Your task to perform on an android device: delete location history Image 0: 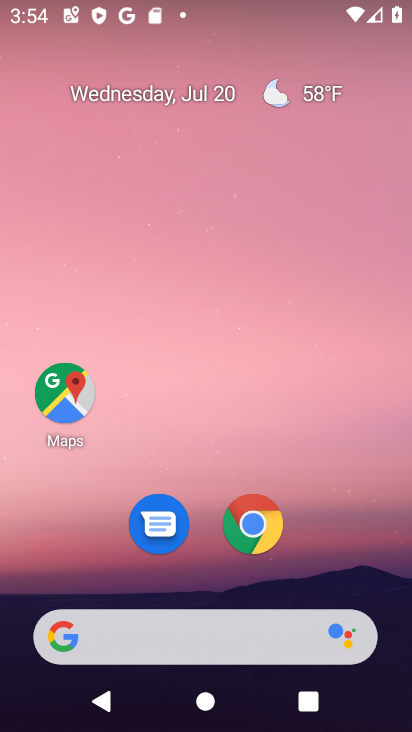
Step 0: click (59, 390)
Your task to perform on an android device: delete location history Image 1: 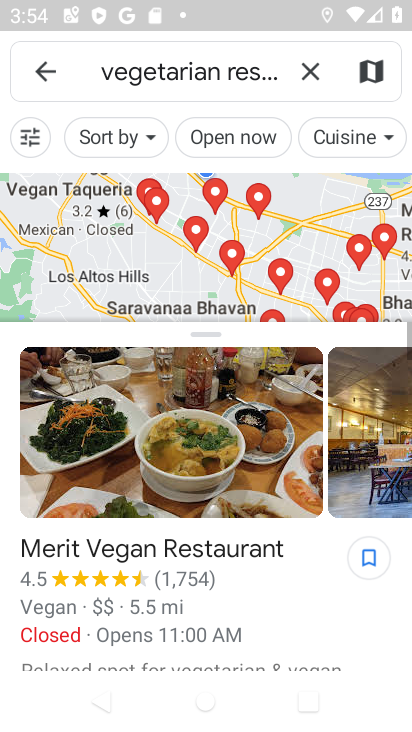
Step 1: click (51, 66)
Your task to perform on an android device: delete location history Image 2: 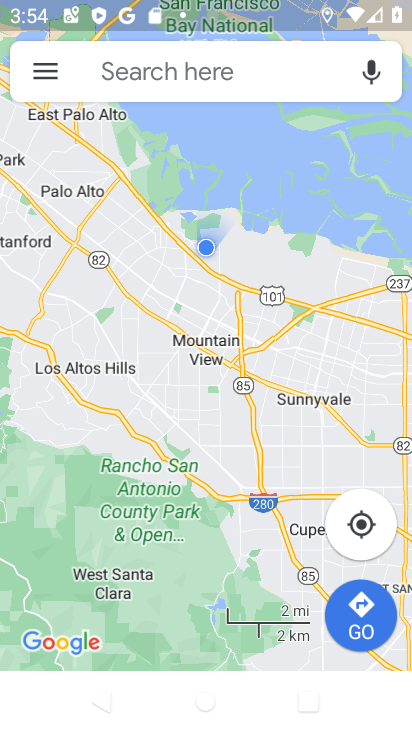
Step 2: click (51, 66)
Your task to perform on an android device: delete location history Image 3: 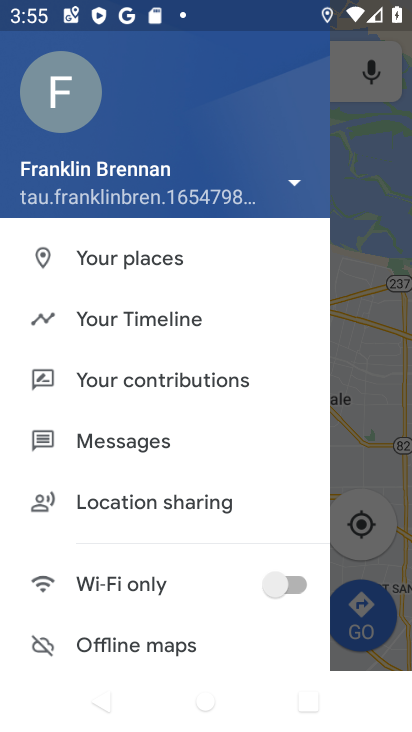
Step 3: click (138, 313)
Your task to perform on an android device: delete location history Image 4: 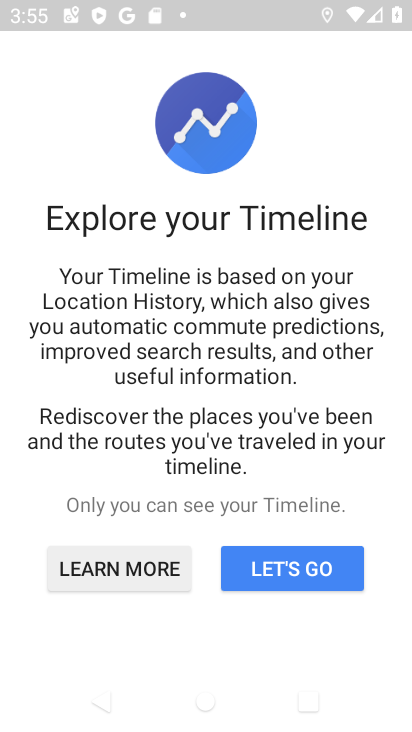
Step 4: click (285, 552)
Your task to perform on an android device: delete location history Image 5: 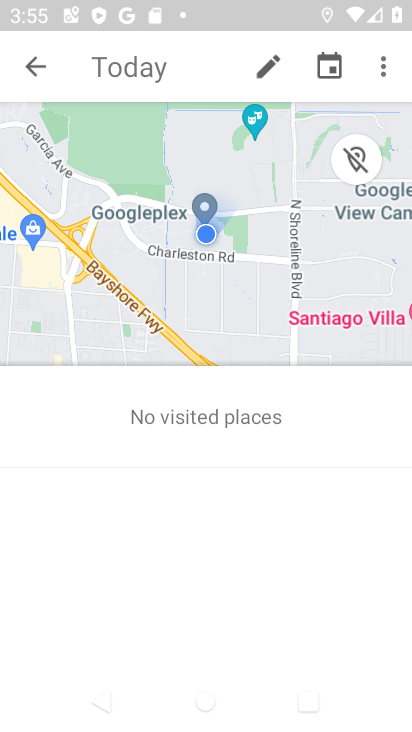
Step 5: click (385, 63)
Your task to perform on an android device: delete location history Image 6: 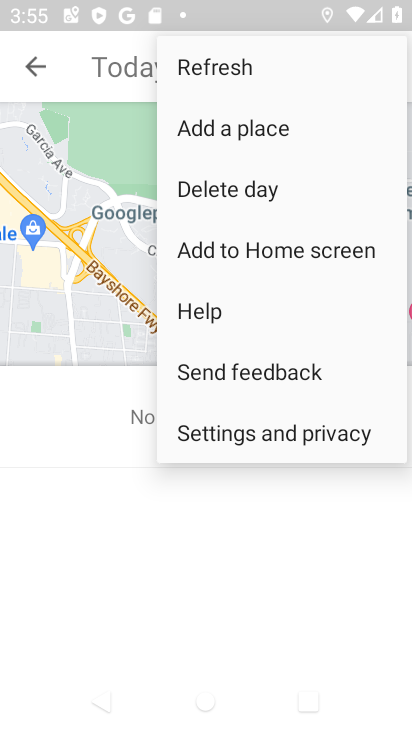
Step 6: click (335, 436)
Your task to perform on an android device: delete location history Image 7: 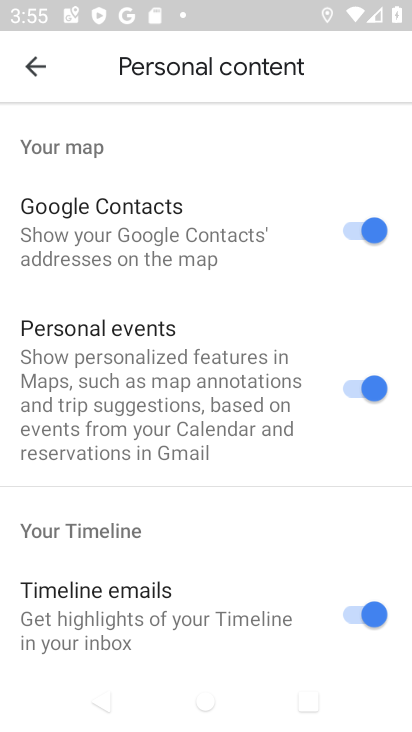
Step 7: drag from (208, 586) to (260, 155)
Your task to perform on an android device: delete location history Image 8: 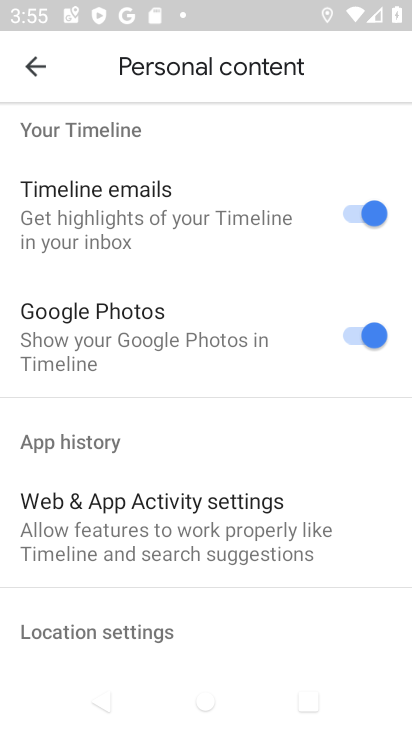
Step 8: drag from (238, 570) to (250, 179)
Your task to perform on an android device: delete location history Image 9: 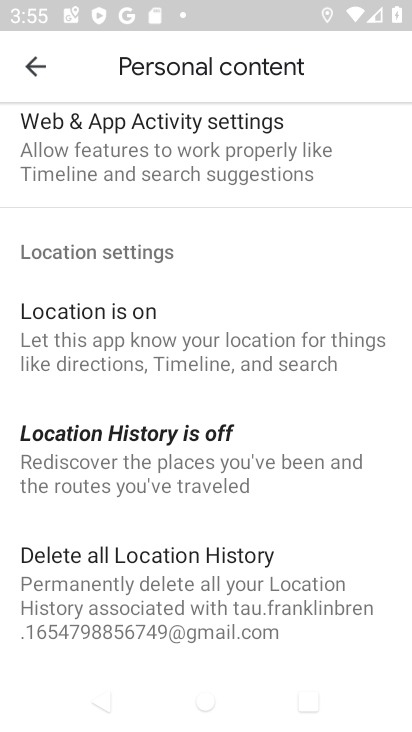
Step 9: drag from (202, 573) to (212, 283)
Your task to perform on an android device: delete location history Image 10: 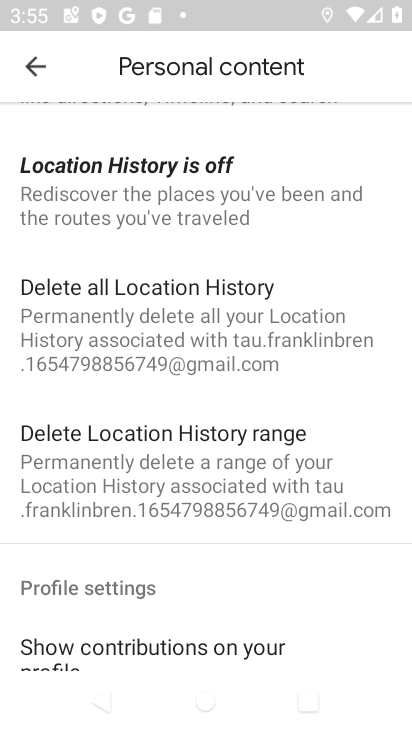
Step 10: click (212, 297)
Your task to perform on an android device: delete location history Image 11: 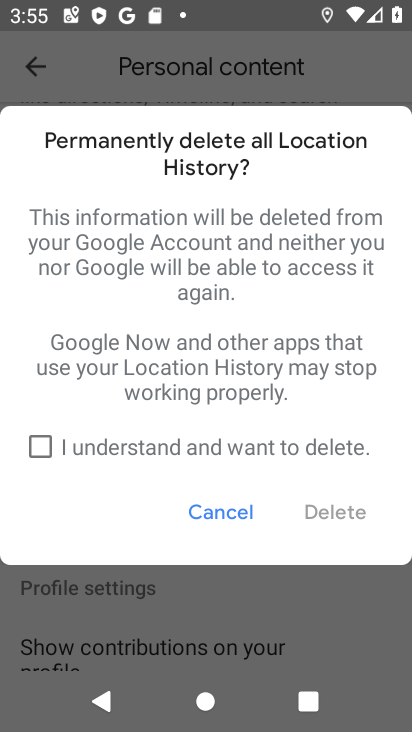
Step 11: click (35, 437)
Your task to perform on an android device: delete location history Image 12: 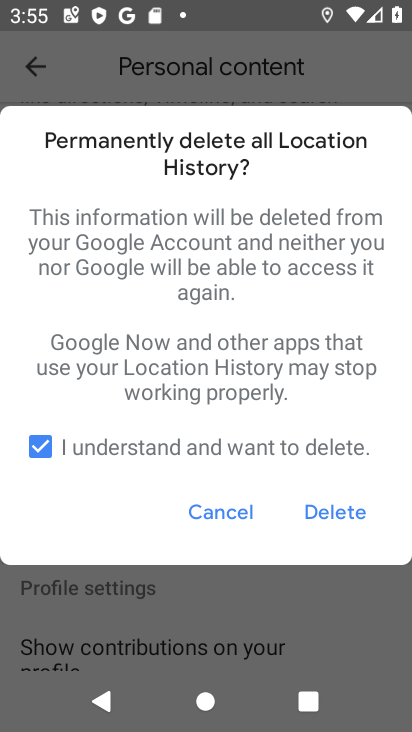
Step 12: click (353, 499)
Your task to perform on an android device: delete location history Image 13: 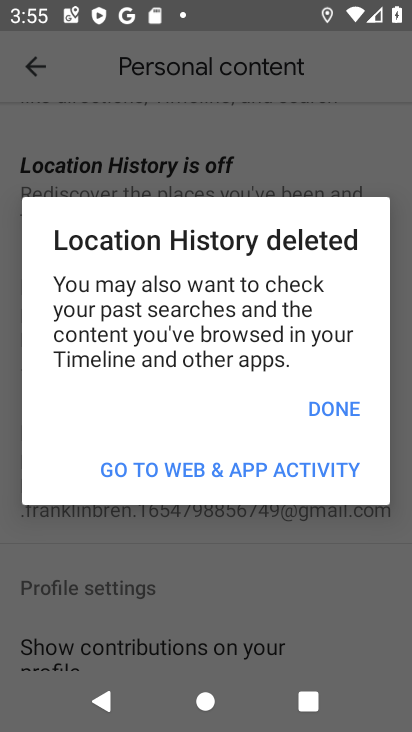
Step 13: click (334, 398)
Your task to perform on an android device: delete location history Image 14: 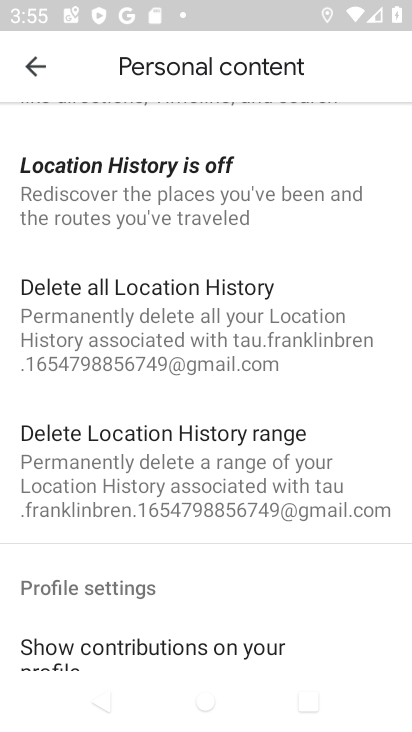
Step 14: task complete